Your task to perform on an android device: Open calendar and show me the first week of next month Image 0: 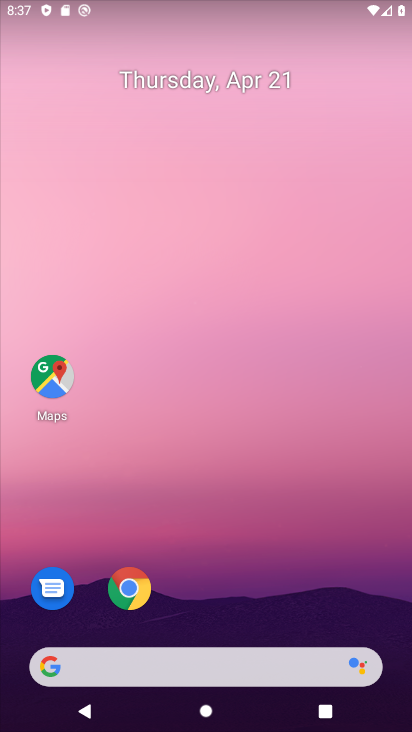
Step 0: drag from (307, 550) to (370, 427)
Your task to perform on an android device: Open calendar and show me the first week of next month Image 1: 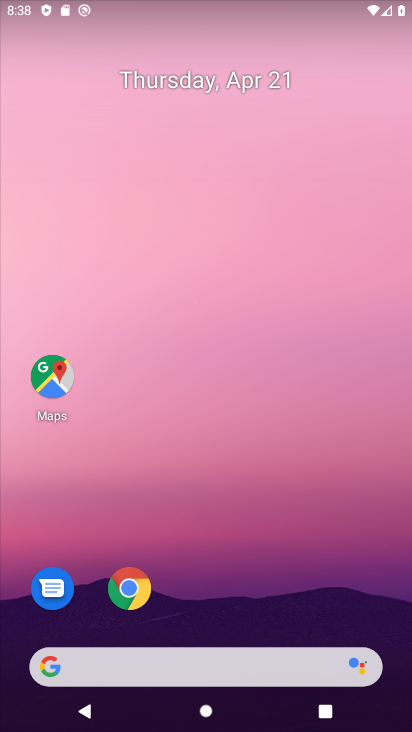
Step 1: drag from (255, 561) to (225, 26)
Your task to perform on an android device: Open calendar and show me the first week of next month Image 2: 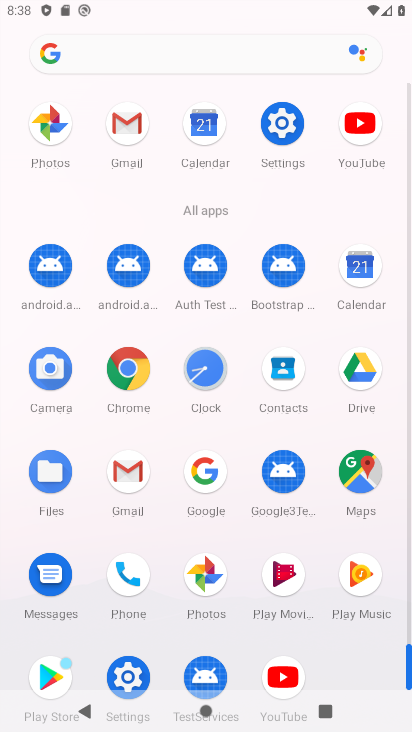
Step 2: drag from (9, 535) to (0, 269)
Your task to perform on an android device: Open calendar and show me the first week of next month Image 3: 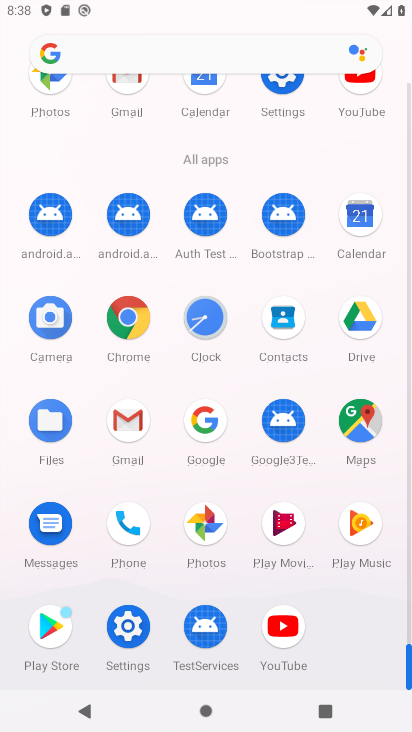
Step 3: drag from (1, 211) to (7, 393)
Your task to perform on an android device: Open calendar and show me the first week of next month Image 4: 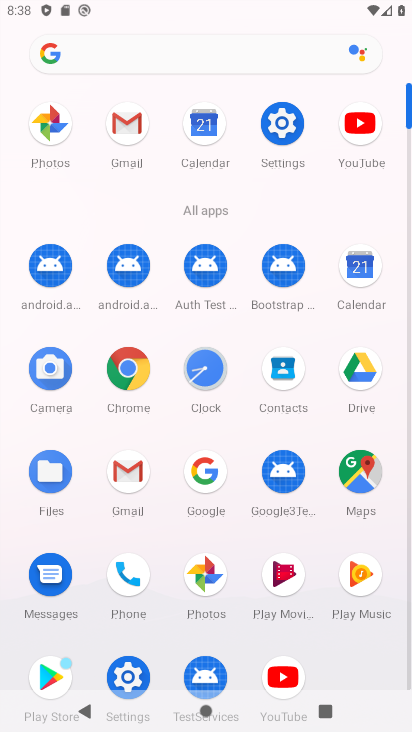
Step 4: click (360, 266)
Your task to perform on an android device: Open calendar and show me the first week of next month Image 5: 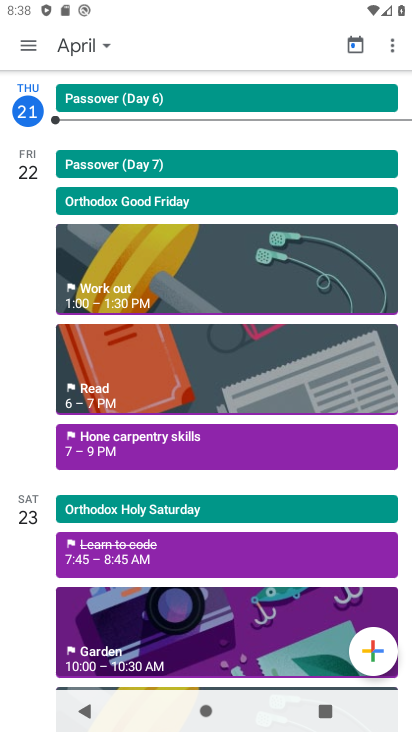
Step 5: click (53, 41)
Your task to perform on an android device: Open calendar and show me the first week of next month Image 6: 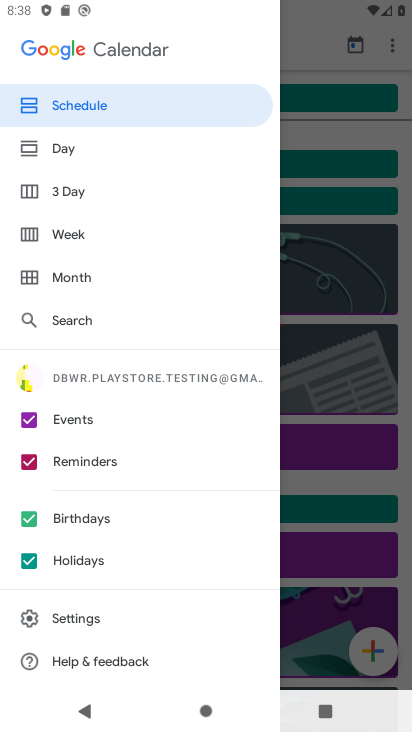
Step 6: click (93, 278)
Your task to perform on an android device: Open calendar and show me the first week of next month Image 7: 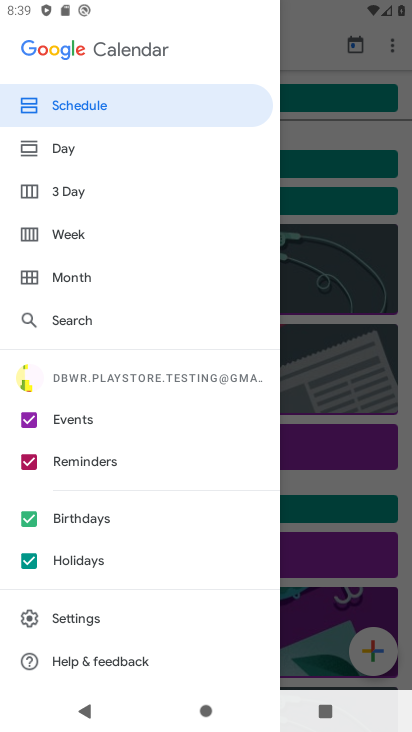
Step 7: click (97, 276)
Your task to perform on an android device: Open calendar and show me the first week of next month Image 8: 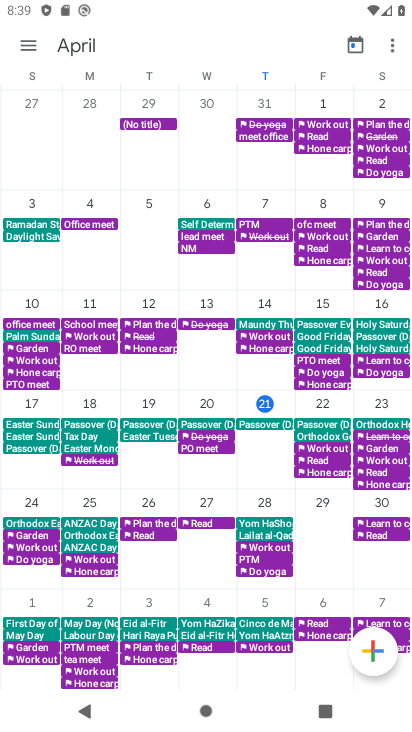
Step 8: drag from (352, 280) to (0, 91)
Your task to perform on an android device: Open calendar and show me the first week of next month Image 9: 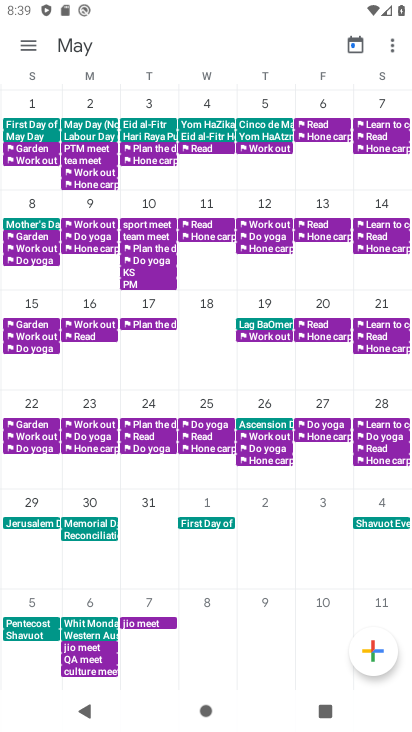
Step 9: click (43, 97)
Your task to perform on an android device: Open calendar and show me the first week of next month Image 10: 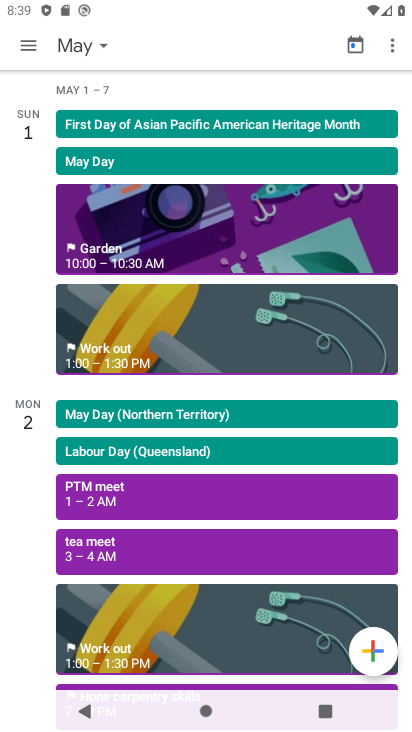
Step 10: click (23, 37)
Your task to perform on an android device: Open calendar and show me the first week of next month Image 11: 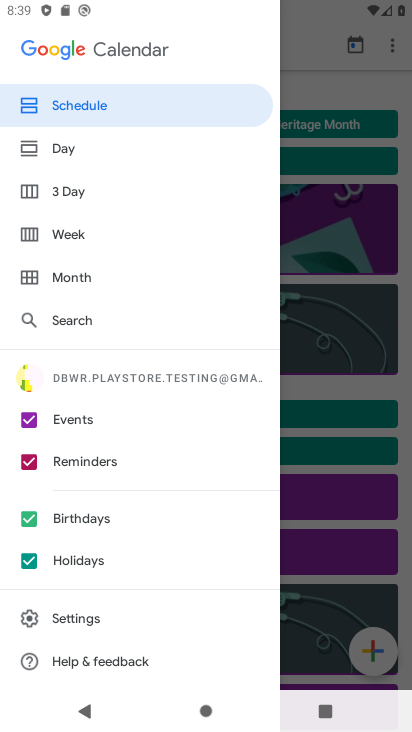
Step 11: click (90, 231)
Your task to perform on an android device: Open calendar and show me the first week of next month Image 12: 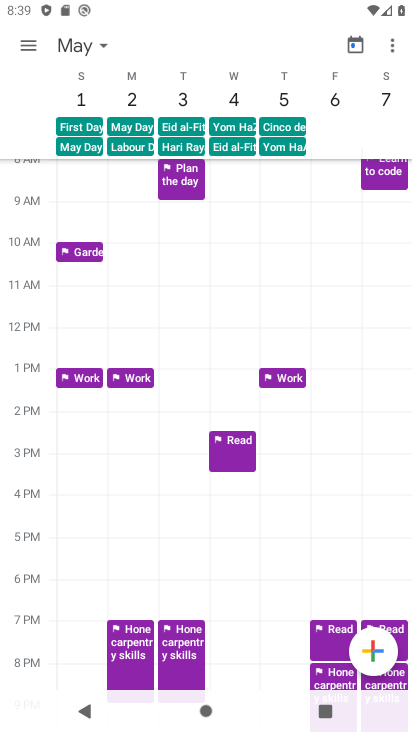
Step 12: task complete